Your task to perform on an android device: How big is a blue whale? Image 0: 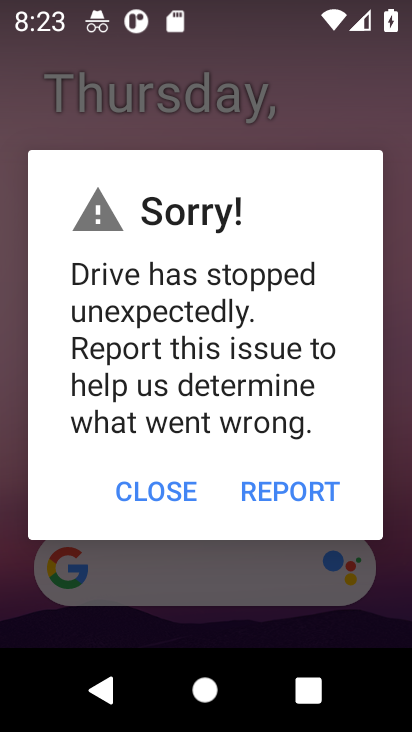
Step 0: click (183, 483)
Your task to perform on an android device: How big is a blue whale? Image 1: 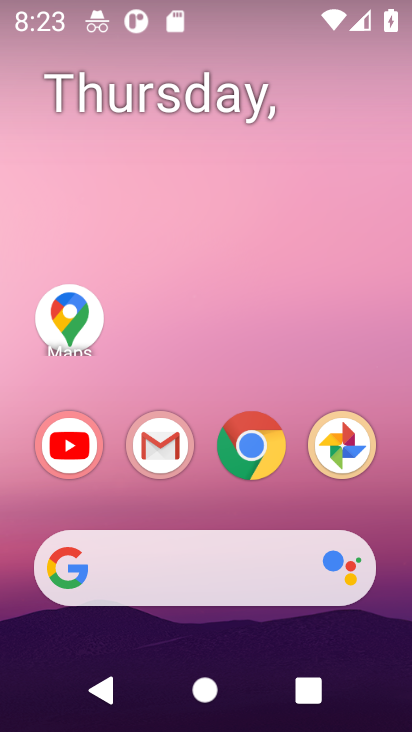
Step 1: drag from (202, 497) to (219, 25)
Your task to perform on an android device: How big is a blue whale? Image 2: 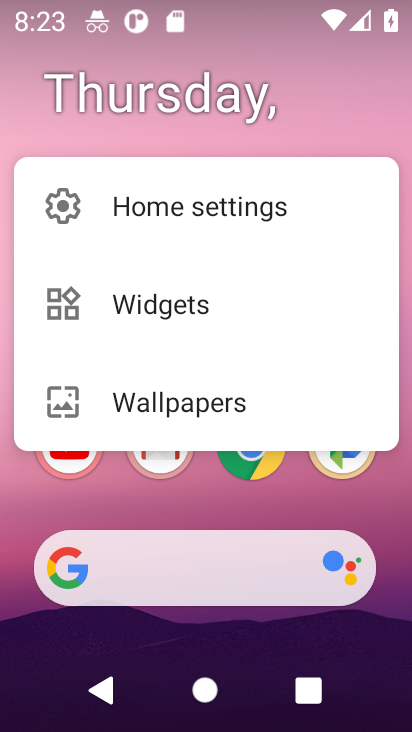
Step 2: click (319, 121)
Your task to perform on an android device: How big is a blue whale? Image 3: 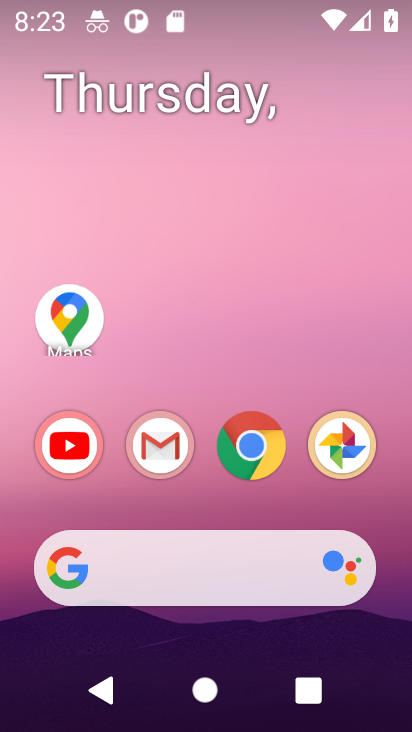
Step 3: drag from (216, 520) to (248, 41)
Your task to perform on an android device: How big is a blue whale? Image 4: 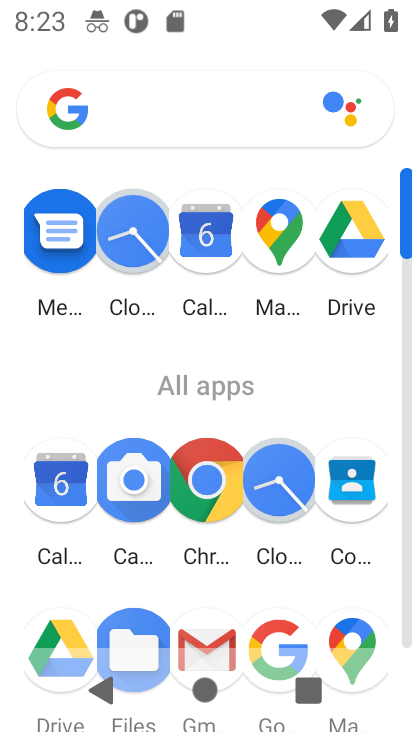
Step 4: drag from (408, 244) to (411, 302)
Your task to perform on an android device: How big is a blue whale? Image 5: 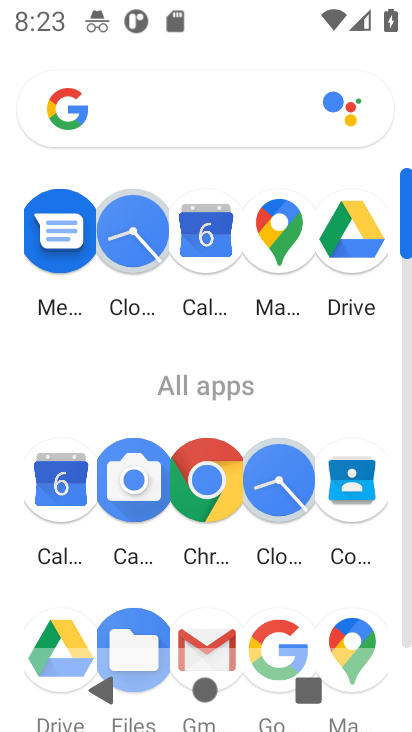
Step 5: click (407, 312)
Your task to perform on an android device: How big is a blue whale? Image 6: 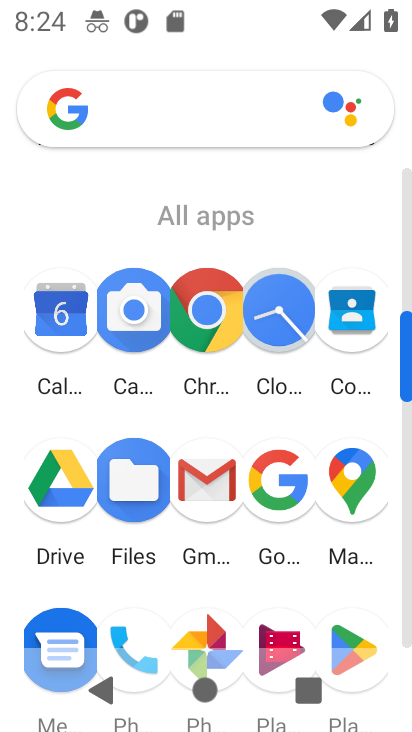
Step 6: click (403, 513)
Your task to perform on an android device: How big is a blue whale? Image 7: 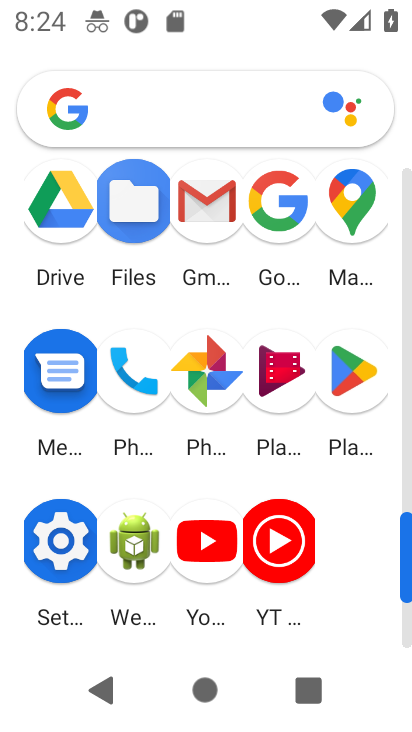
Step 7: click (73, 561)
Your task to perform on an android device: How big is a blue whale? Image 8: 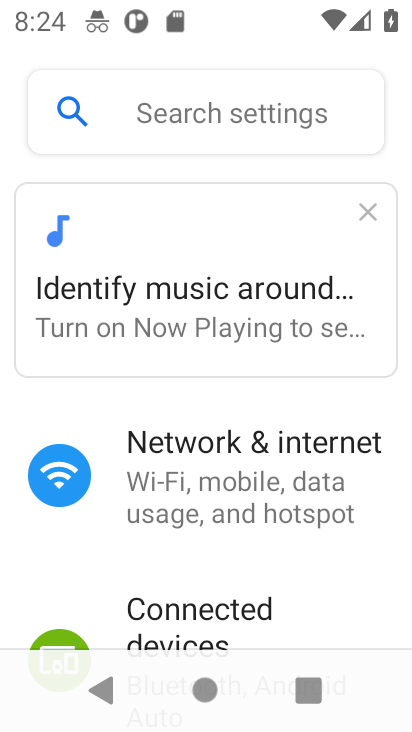
Step 8: click (380, 204)
Your task to perform on an android device: How big is a blue whale? Image 9: 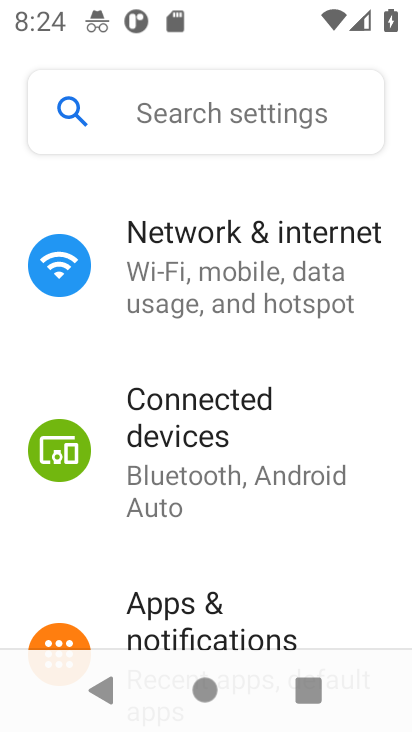
Step 9: drag from (278, 585) to (292, 216)
Your task to perform on an android device: How big is a blue whale? Image 10: 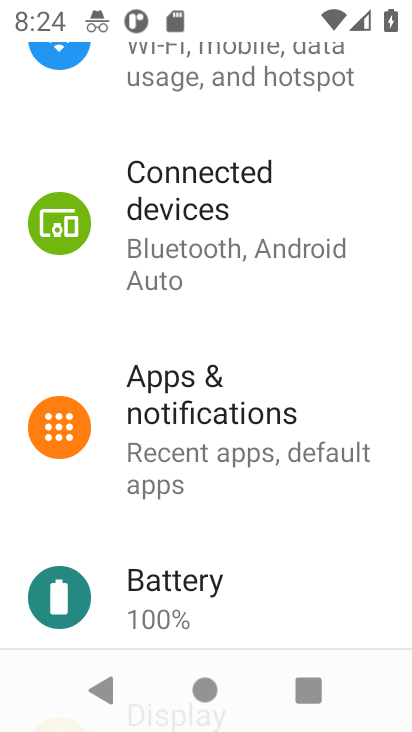
Step 10: drag from (241, 525) to (237, 183)
Your task to perform on an android device: How big is a blue whale? Image 11: 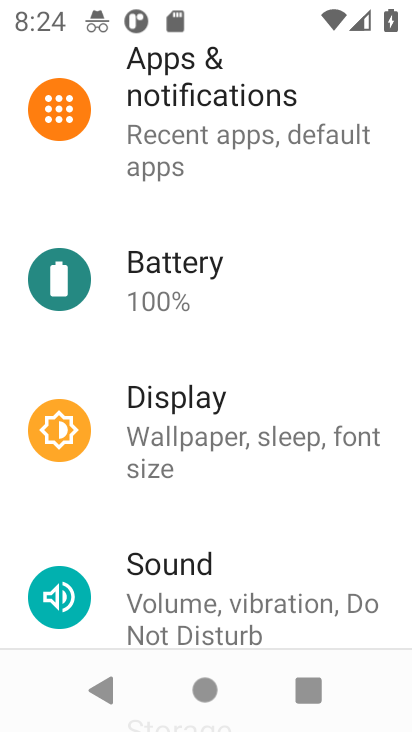
Step 11: click (221, 454)
Your task to perform on an android device: How big is a blue whale? Image 12: 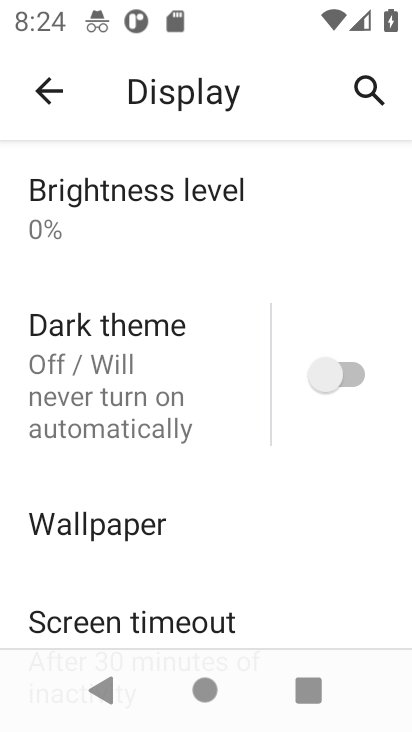
Step 12: click (320, 406)
Your task to perform on an android device: How big is a blue whale? Image 13: 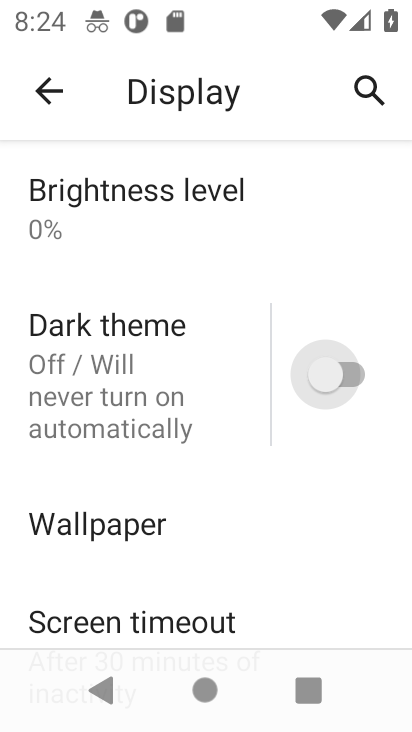
Step 13: drag from (238, 613) to (242, 293)
Your task to perform on an android device: How big is a blue whale? Image 14: 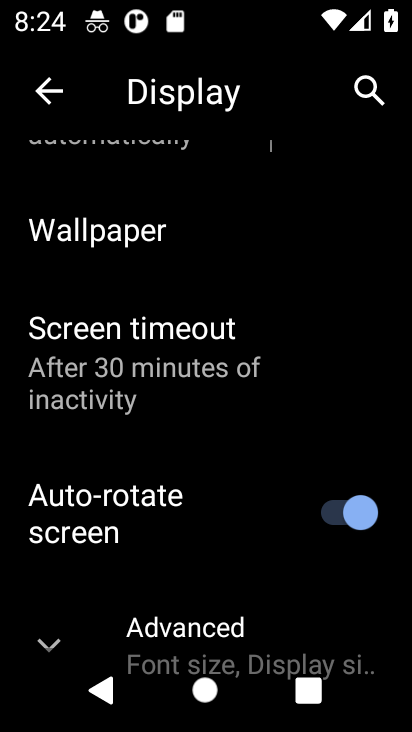
Step 14: drag from (252, 497) to (259, 296)
Your task to perform on an android device: How big is a blue whale? Image 15: 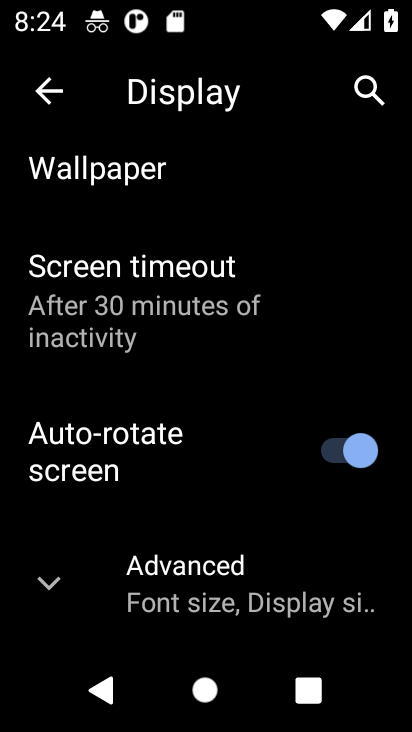
Step 15: click (233, 558)
Your task to perform on an android device: How big is a blue whale? Image 16: 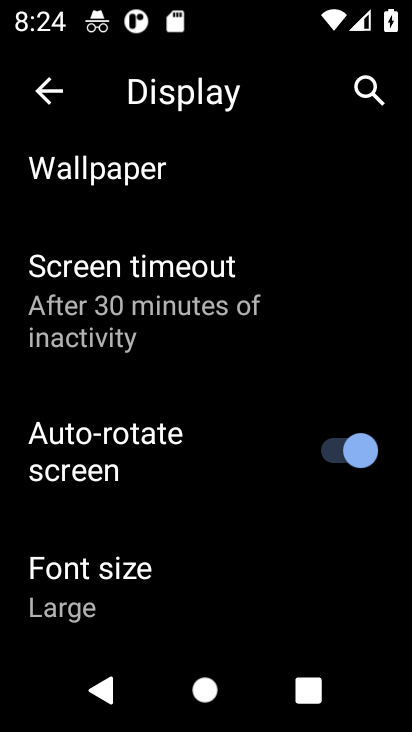
Step 16: click (142, 592)
Your task to perform on an android device: How big is a blue whale? Image 17: 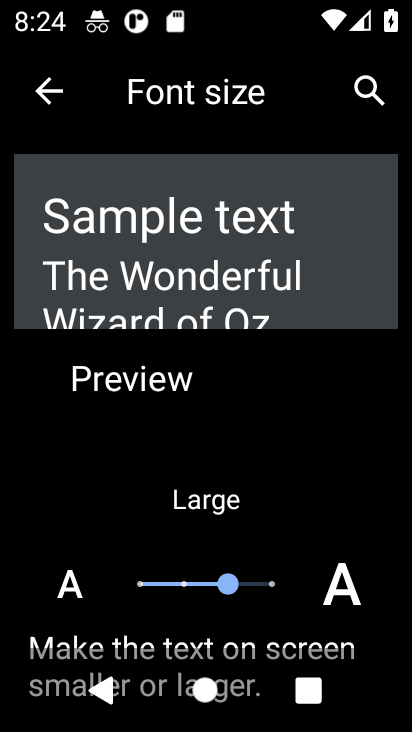
Step 17: click (184, 586)
Your task to perform on an android device: How big is a blue whale? Image 18: 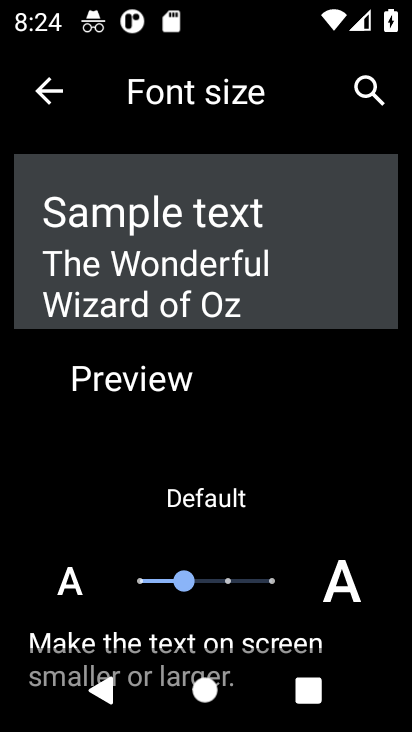
Step 18: click (143, 585)
Your task to perform on an android device: How big is a blue whale? Image 19: 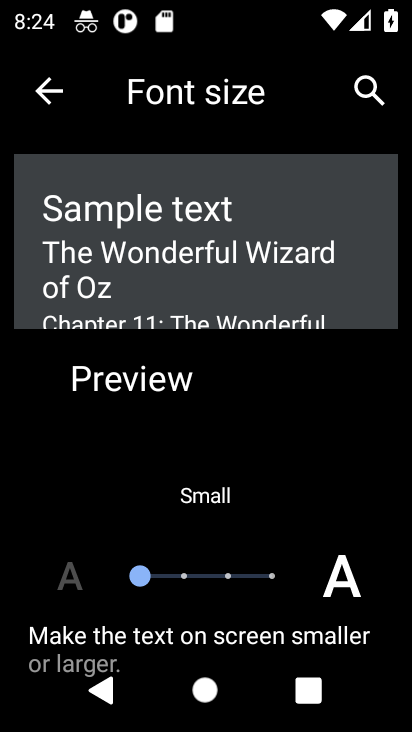
Step 19: click (65, 88)
Your task to perform on an android device: How big is a blue whale? Image 20: 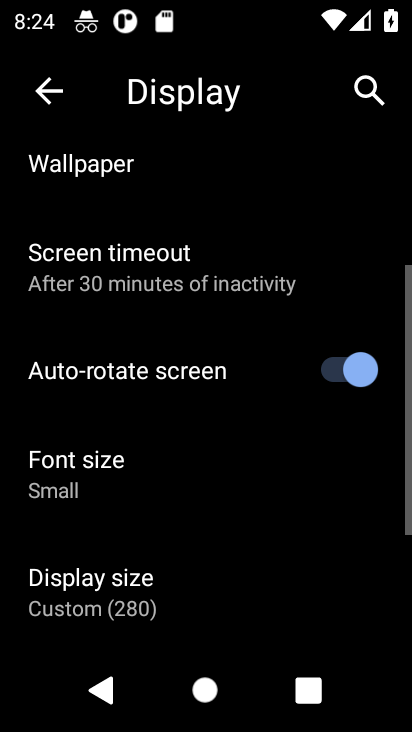
Step 20: click (65, 88)
Your task to perform on an android device: How big is a blue whale? Image 21: 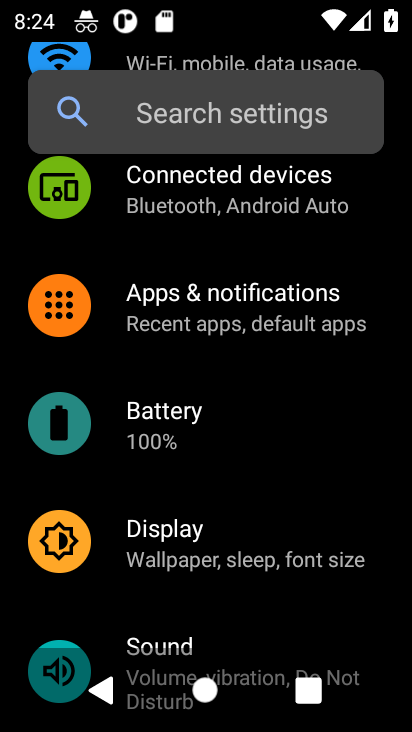
Step 21: press home button
Your task to perform on an android device: How big is a blue whale? Image 22: 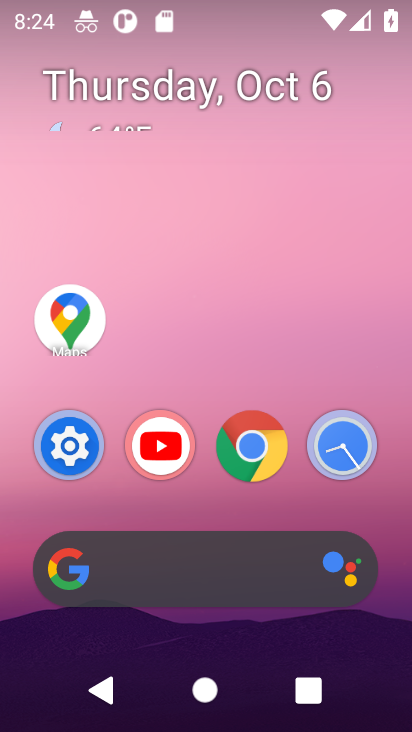
Step 22: click (162, 570)
Your task to perform on an android device: How big is a blue whale? Image 23: 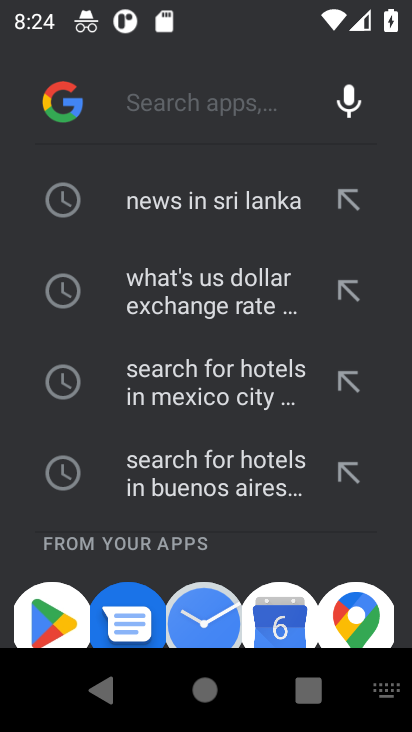
Step 23: type "How big is a blue whale?"
Your task to perform on an android device: How big is a blue whale? Image 24: 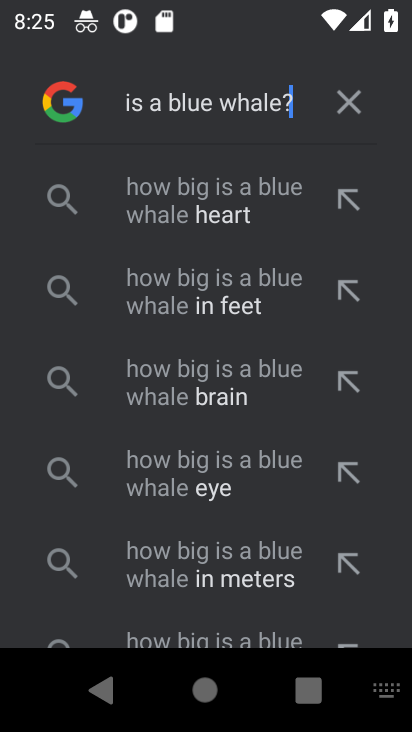
Step 24: click (232, 182)
Your task to perform on an android device: How big is a blue whale? Image 25: 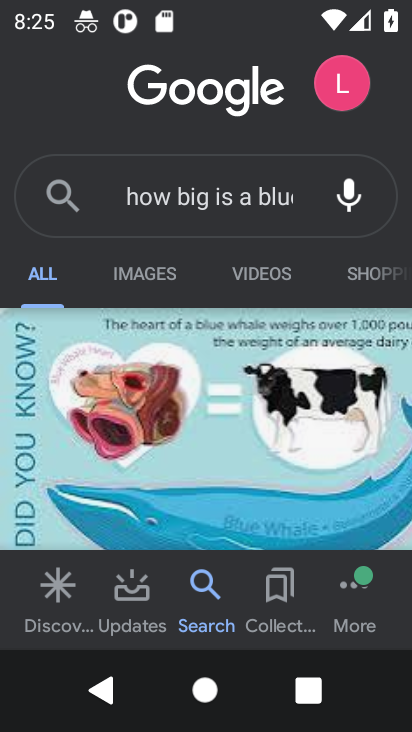
Step 25: task complete